Your task to perform on an android device: Find coffee shops on Maps Image 0: 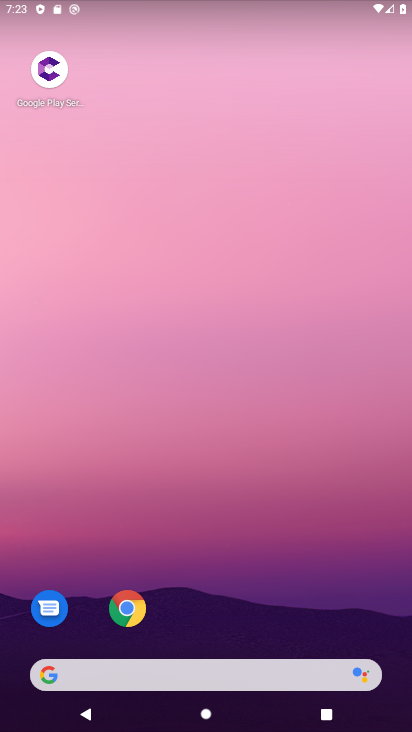
Step 0: press home button
Your task to perform on an android device: Find coffee shops on Maps Image 1: 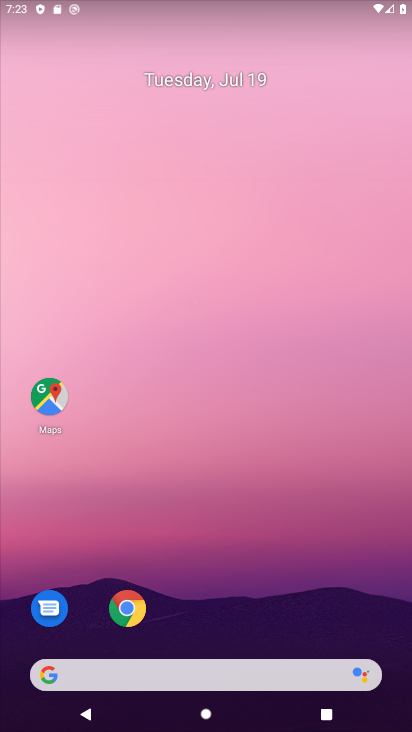
Step 1: click (55, 398)
Your task to perform on an android device: Find coffee shops on Maps Image 2: 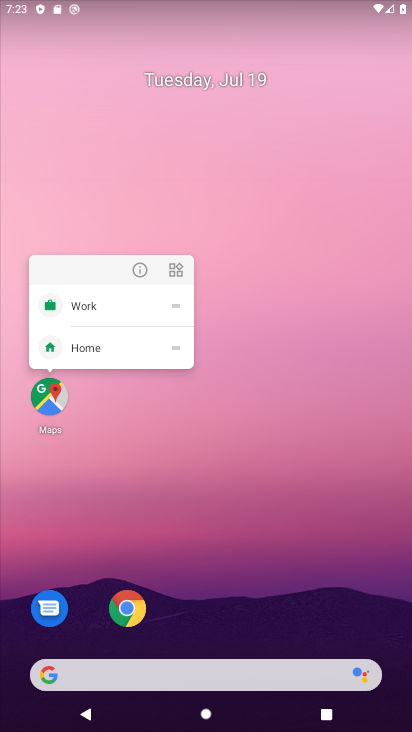
Step 2: click (48, 404)
Your task to perform on an android device: Find coffee shops on Maps Image 3: 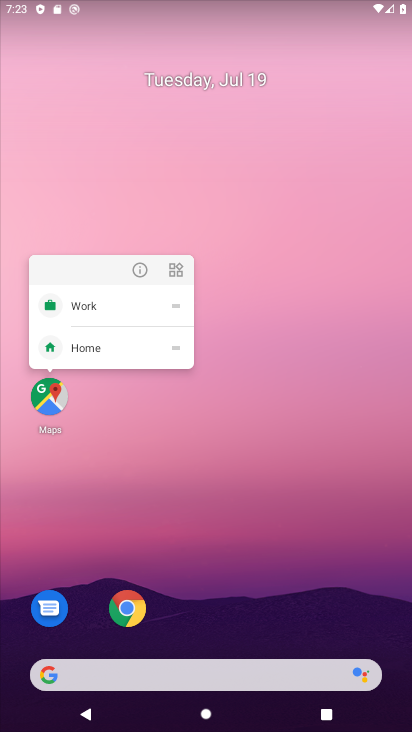
Step 3: click (50, 392)
Your task to perform on an android device: Find coffee shops on Maps Image 4: 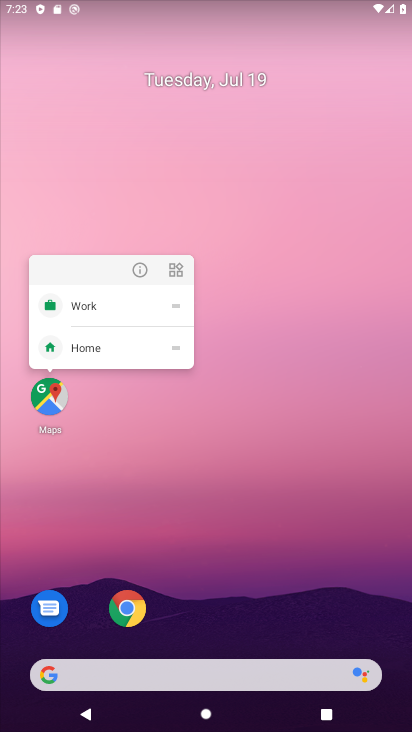
Step 4: click (52, 403)
Your task to perform on an android device: Find coffee shops on Maps Image 5: 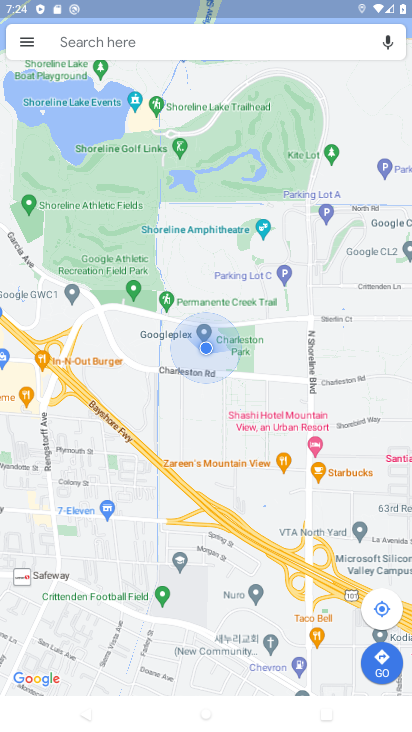
Step 5: click (160, 43)
Your task to perform on an android device: Find coffee shops on Maps Image 6: 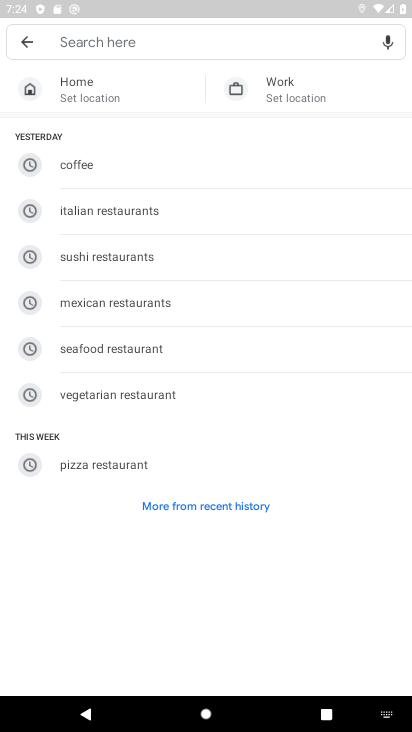
Step 6: click (74, 161)
Your task to perform on an android device: Find coffee shops on Maps Image 7: 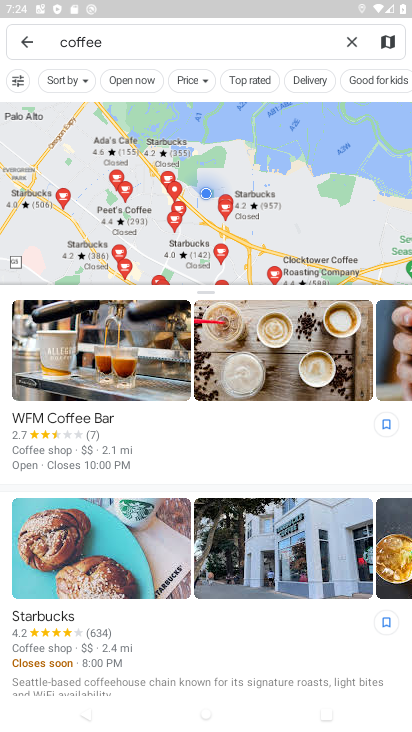
Step 7: task complete